Your task to perform on an android device: Turn off the flashlight Image 0: 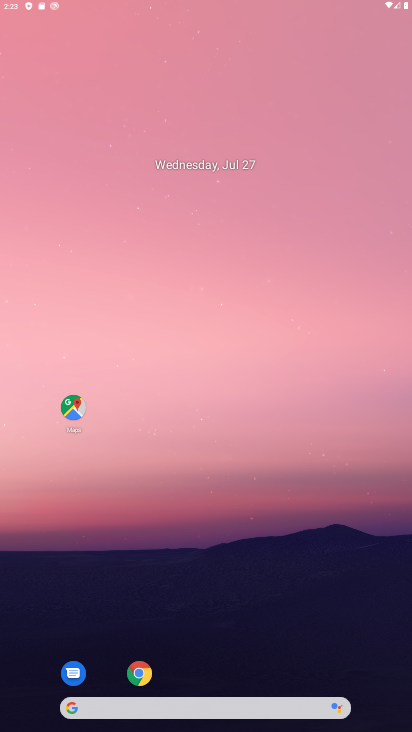
Step 0: press home button
Your task to perform on an android device: Turn off the flashlight Image 1: 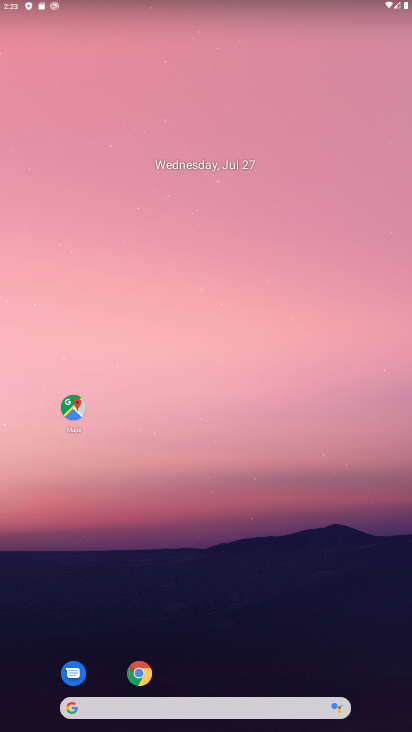
Step 1: task complete